Your task to perform on an android device: Search for seafood restaurants on Google Maps Image 0: 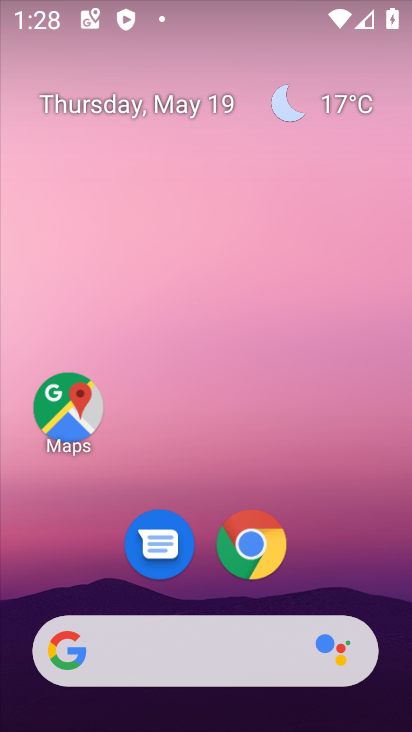
Step 0: drag from (203, 727) to (264, 89)
Your task to perform on an android device: Search for seafood restaurants on Google Maps Image 1: 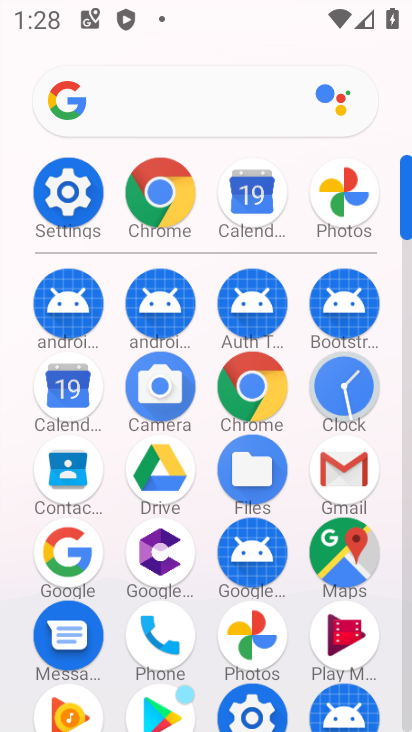
Step 1: click (353, 543)
Your task to perform on an android device: Search for seafood restaurants on Google Maps Image 2: 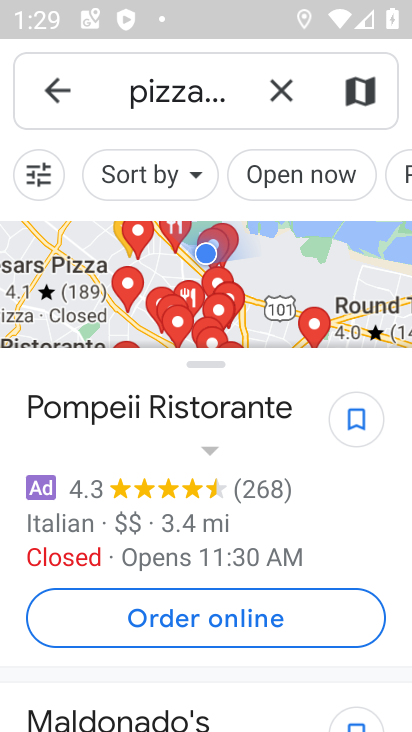
Step 2: click (284, 82)
Your task to perform on an android device: Search for seafood restaurants on Google Maps Image 3: 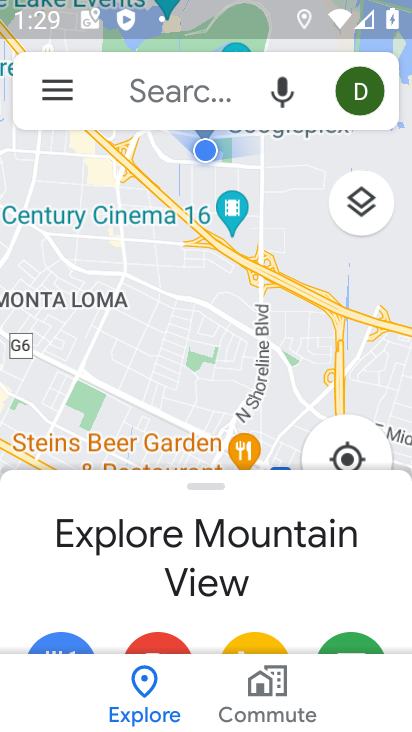
Step 3: click (190, 82)
Your task to perform on an android device: Search for seafood restaurants on Google Maps Image 4: 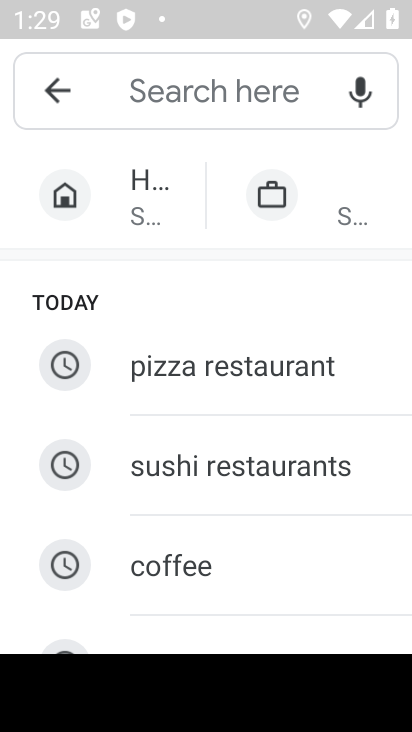
Step 4: type "seafood restaurants"
Your task to perform on an android device: Search for seafood restaurants on Google Maps Image 5: 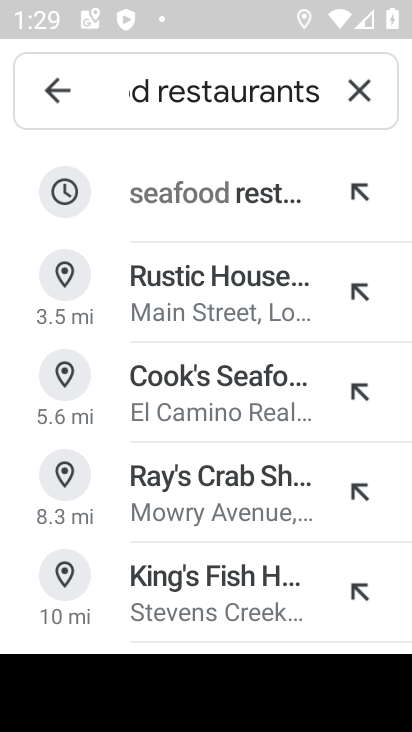
Step 5: click (240, 191)
Your task to perform on an android device: Search for seafood restaurants on Google Maps Image 6: 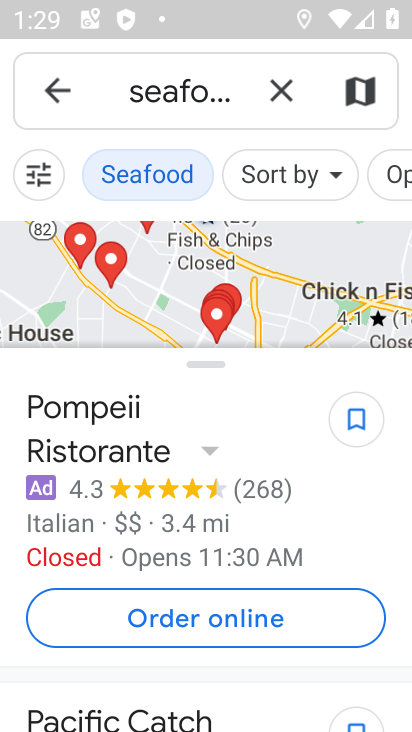
Step 6: task complete